Your task to perform on an android device: Go to settings Image 0: 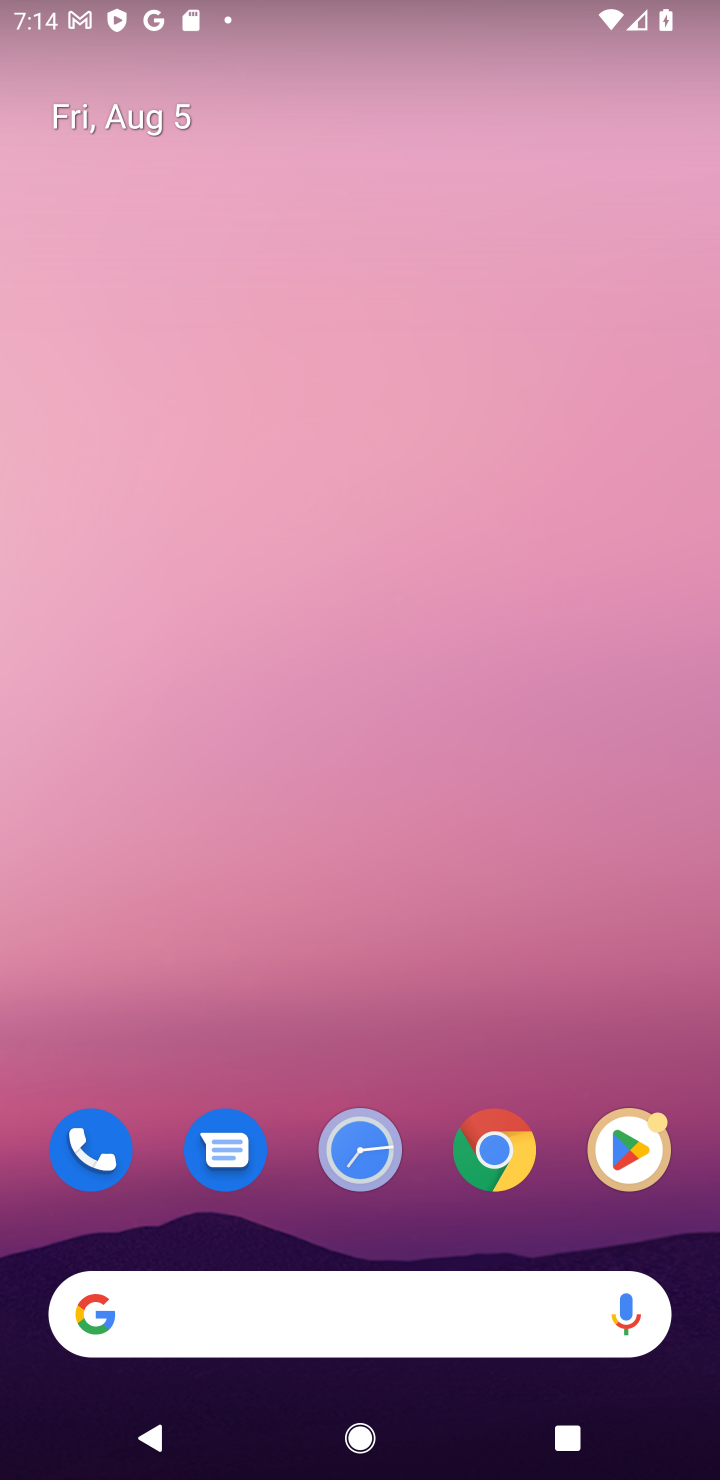
Step 0: press home button
Your task to perform on an android device: Go to settings Image 1: 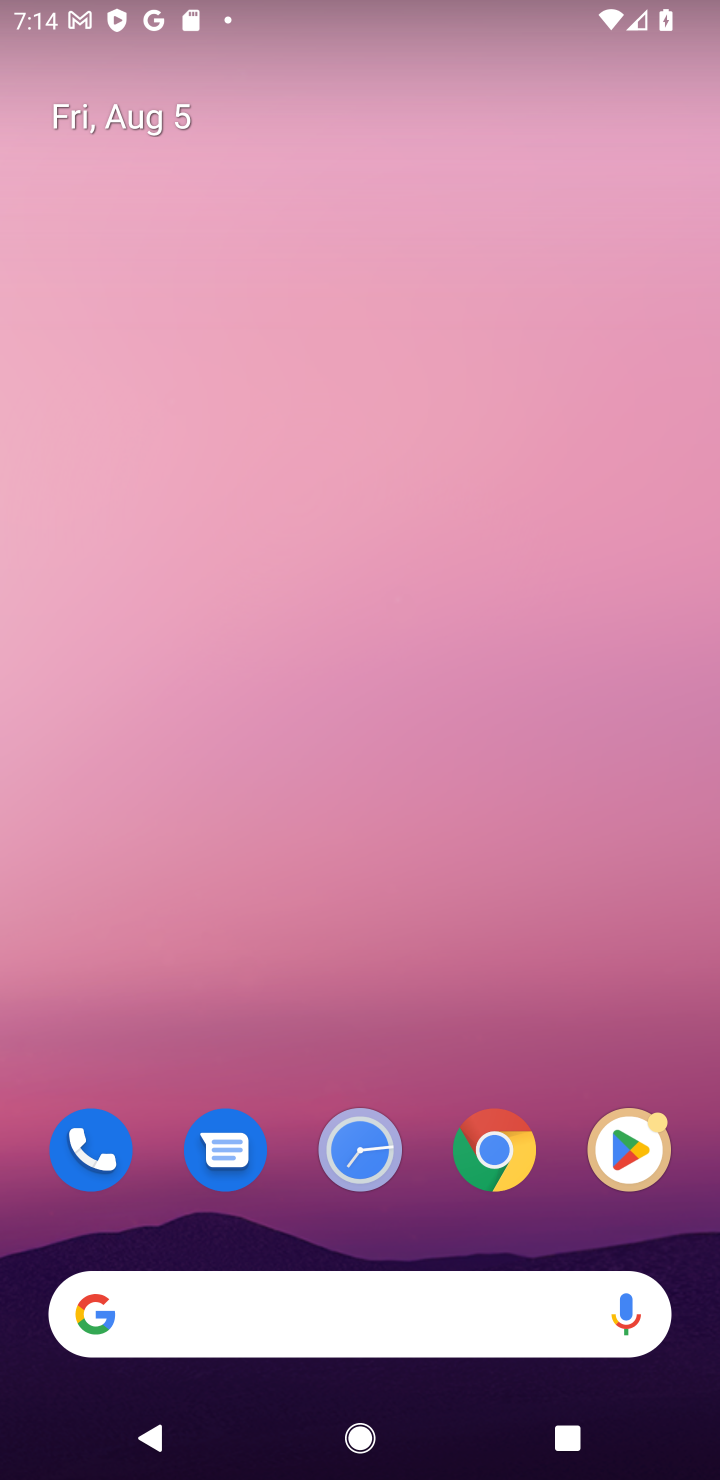
Step 1: drag from (287, 1075) to (385, 211)
Your task to perform on an android device: Go to settings Image 2: 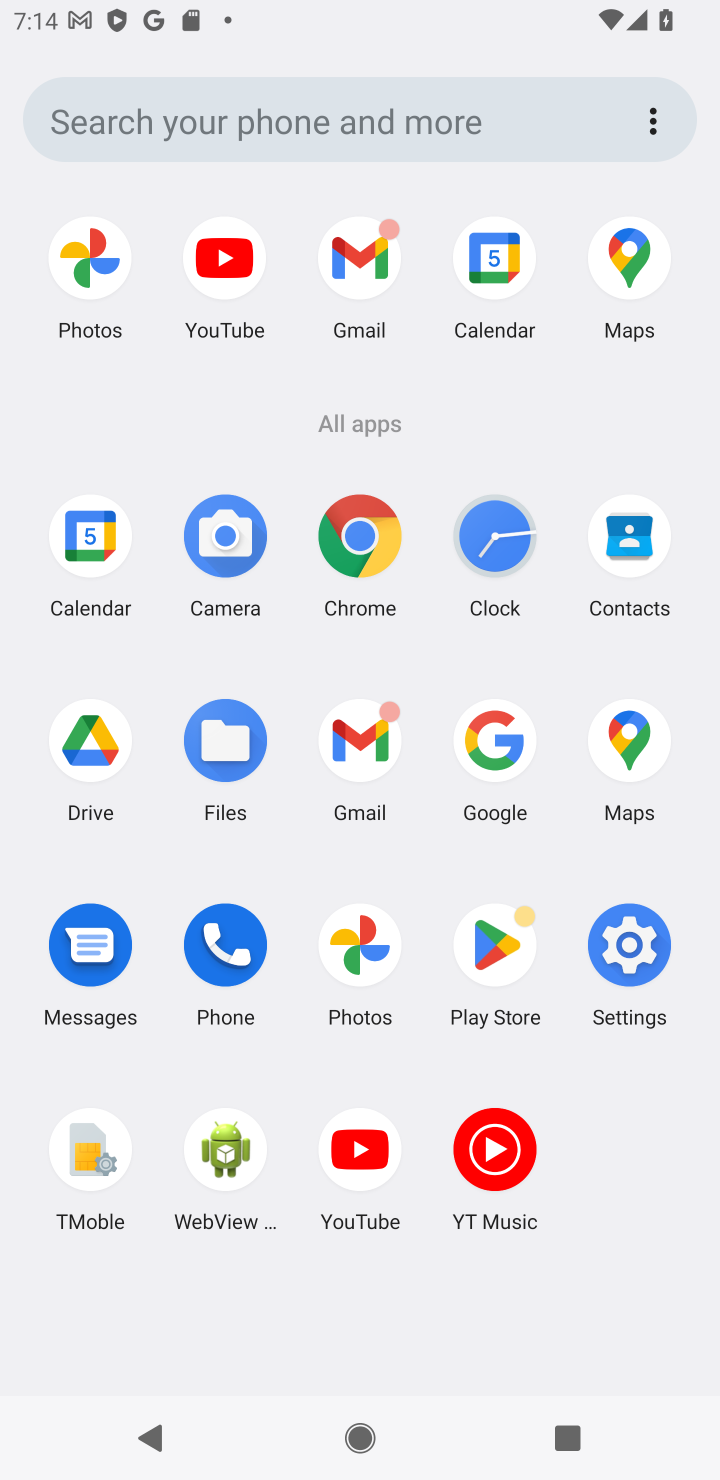
Step 2: click (633, 950)
Your task to perform on an android device: Go to settings Image 3: 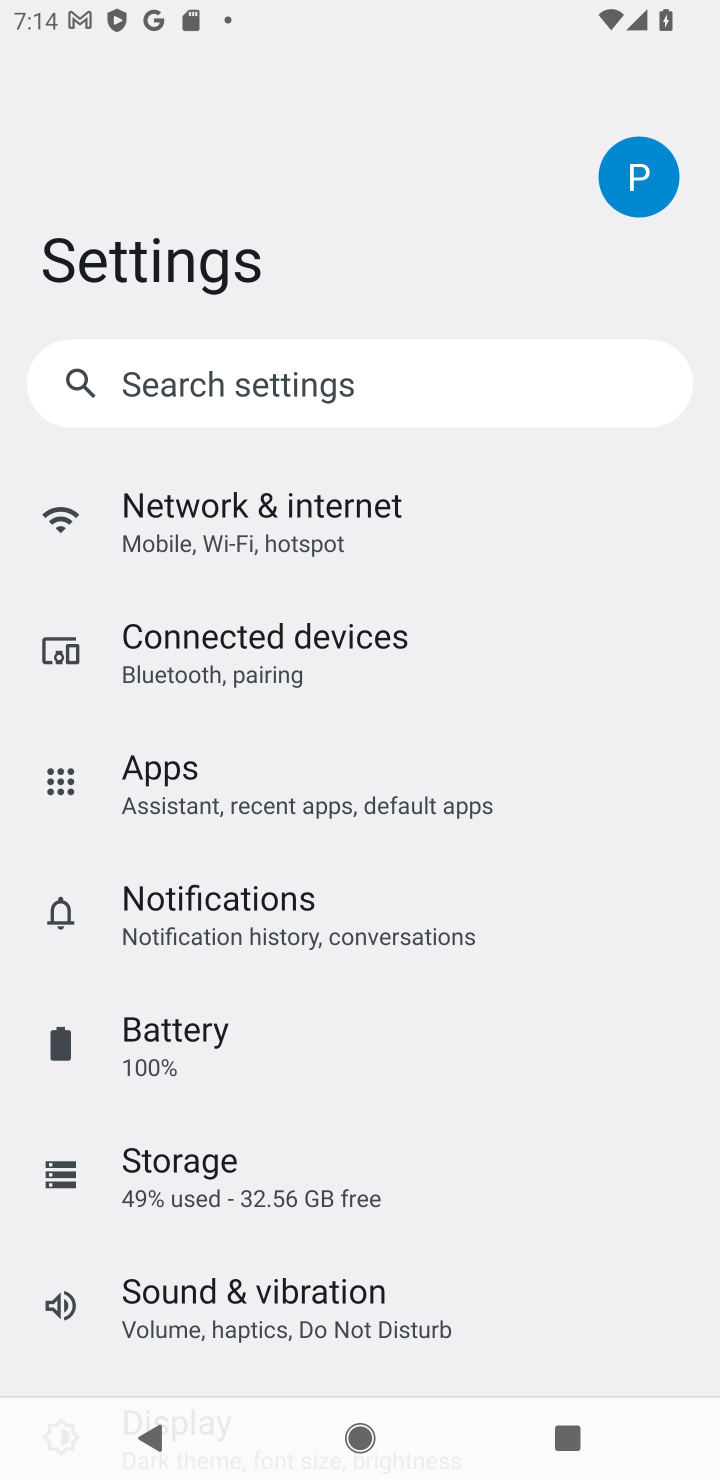
Step 3: task complete